Your task to perform on an android device: turn on sleep mode Image 0: 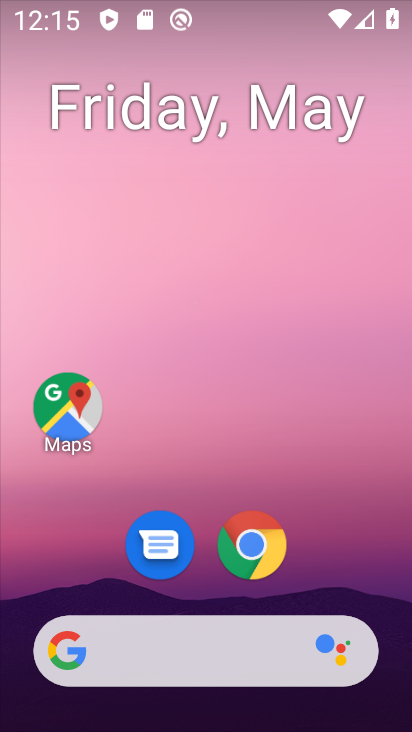
Step 0: drag from (294, 580) to (211, 1)
Your task to perform on an android device: turn on sleep mode Image 1: 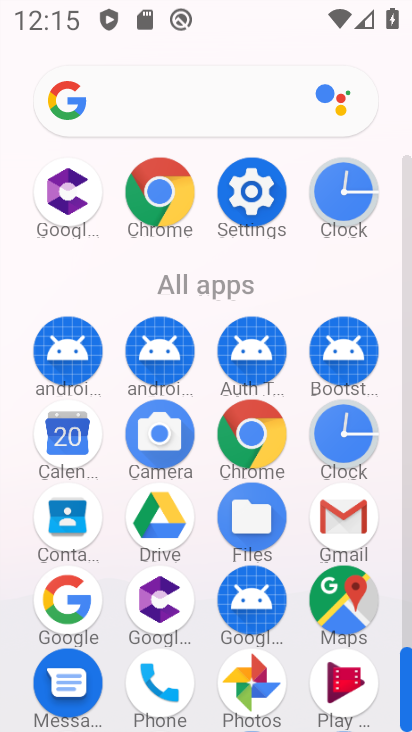
Step 1: click (243, 200)
Your task to perform on an android device: turn on sleep mode Image 2: 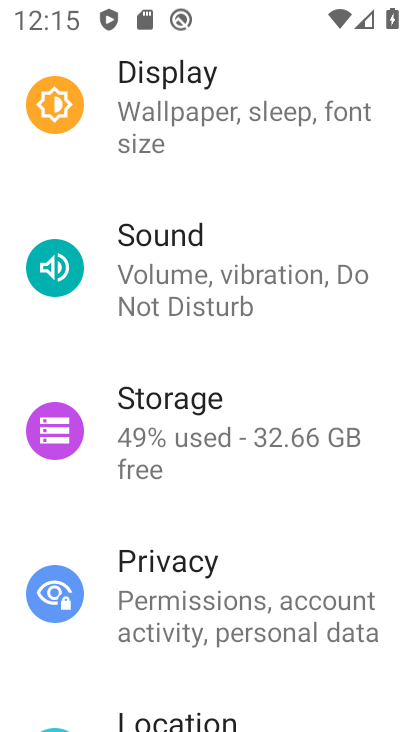
Step 2: task complete